Your task to perform on an android device: turn off smart reply in the gmail app Image 0: 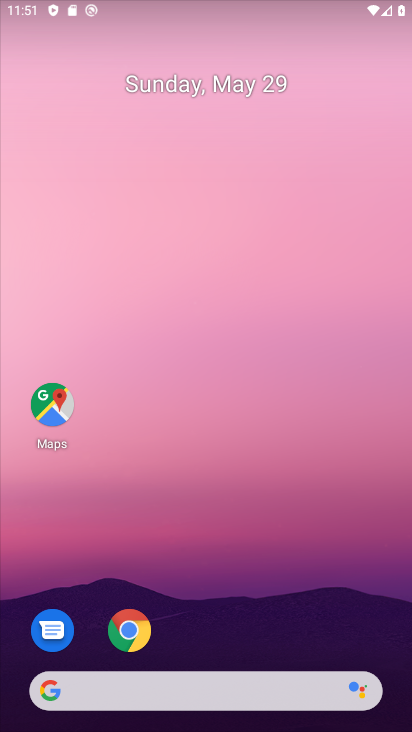
Step 0: drag from (253, 702) to (128, 104)
Your task to perform on an android device: turn off smart reply in the gmail app Image 1: 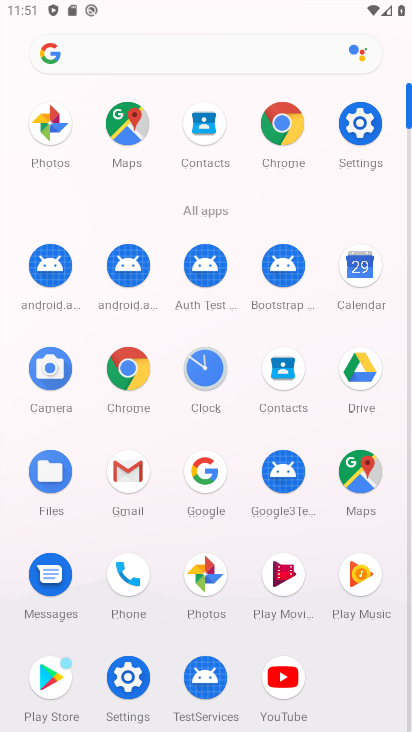
Step 1: click (134, 472)
Your task to perform on an android device: turn off smart reply in the gmail app Image 2: 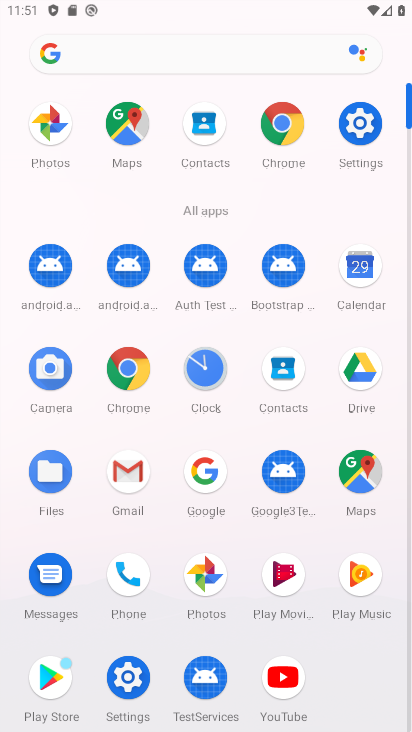
Step 2: click (133, 472)
Your task to perform on an android device: turn off smart reply in the gmail app Image 3: 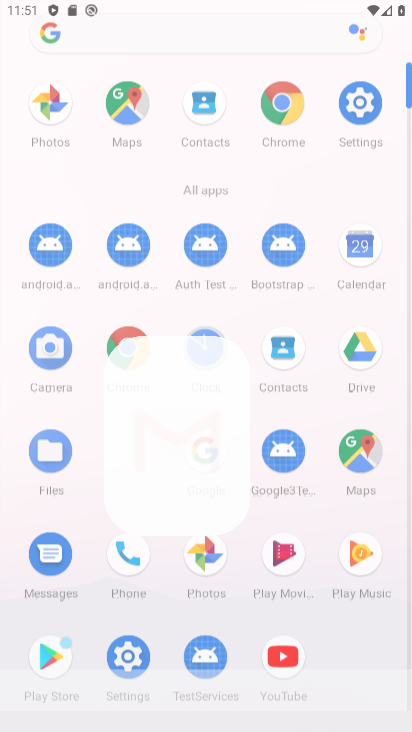
Step 3: click (133, 472)
Your task to perform on an android device: turn off smart reply in the gmail app Image 4: 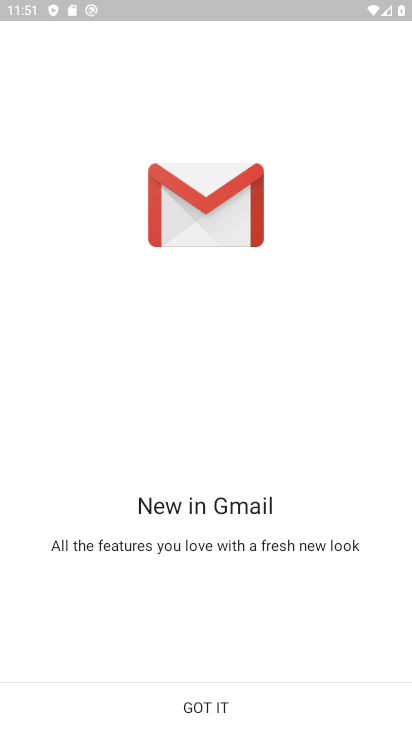
Step 4: click (208, 698)
Your task to perform on an android device: turn off smart reply in the gmail app Image 5: 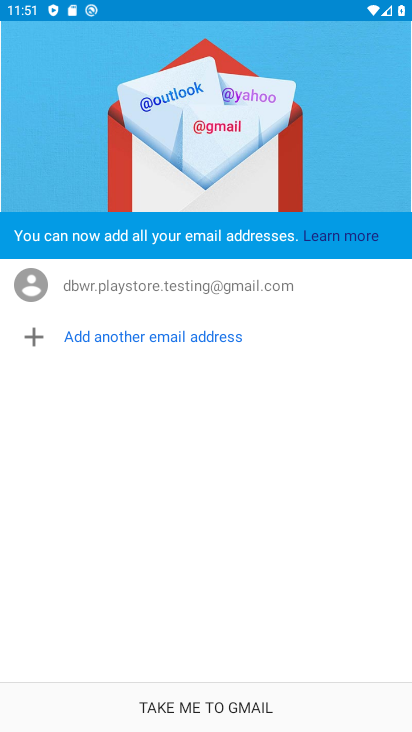
Step 5: click (227, 713)
Your task to perform on an android device: turn off smart reply in the gmail app Image 6: 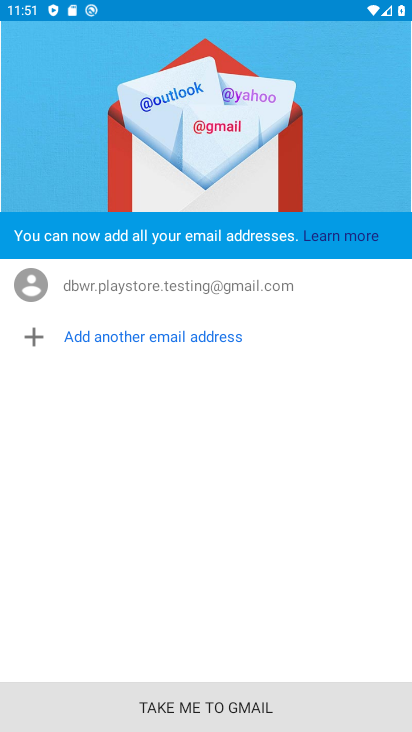
Step 6: click (236, 710)
Your task to perform on an android device: turn off smart reply in the gmail app Image 7: 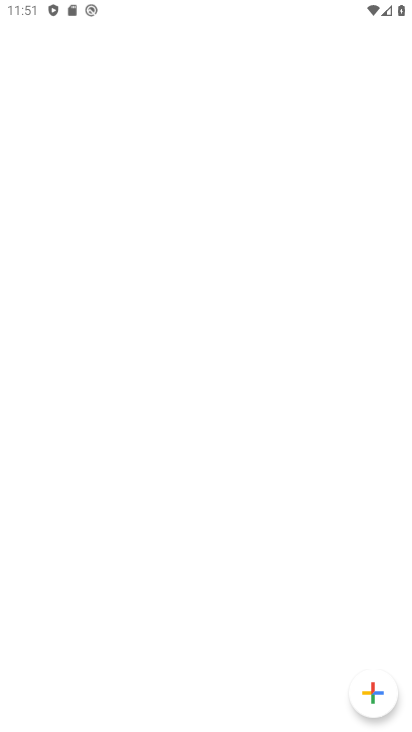
Step 7: click (242, 722)
Your task to perform on an android device: turn off smart reply in the gmail app Image 8: 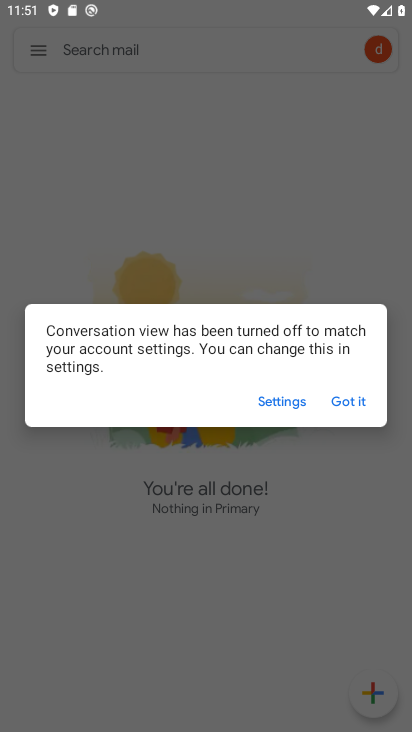
Step 8: click (341, 396)
Your task to perform on an android device: turn off smart reply in the gmail app Image 9: 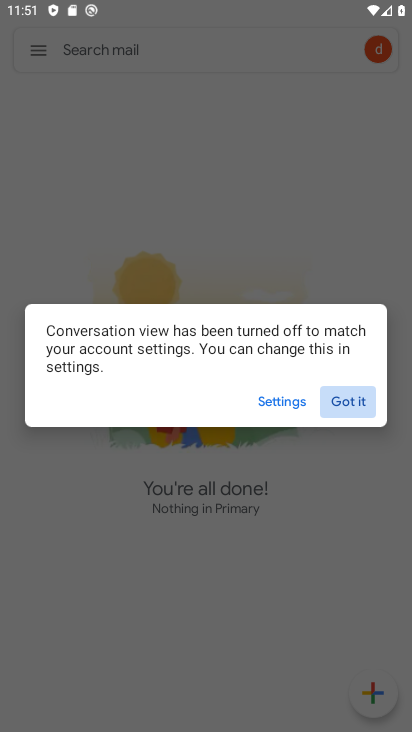
Step 9: click (341, 396)
Your task to perform on an android device: turn off smart reply in the gmail app Image 10: 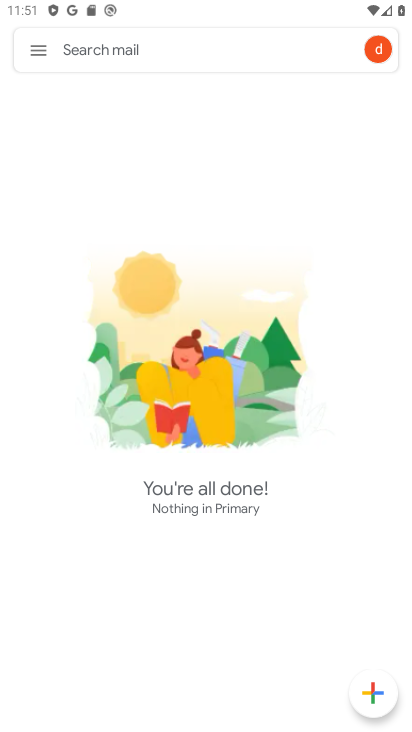
Step 10: click (37, 60)
Your task to perform on an android device: turn off smart reply in the gmail app Image 11: 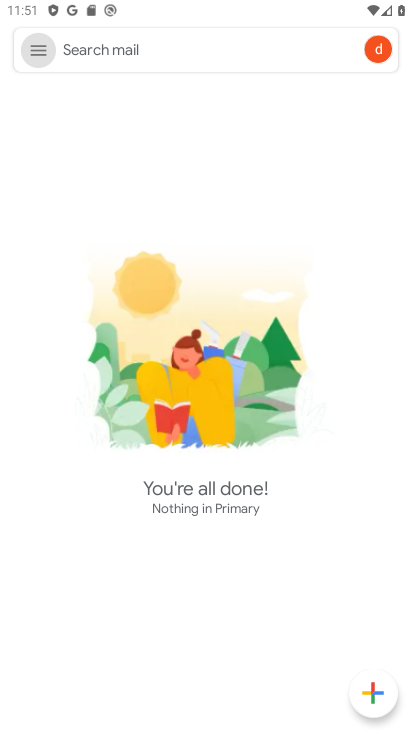
Step 11: click (41, 58)
Your task to perform on an android device: turn off smart reply in the gmail app Image 12: 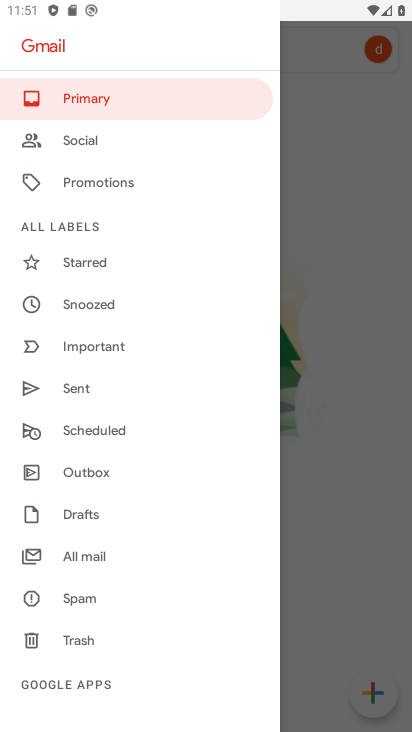
Step 12: click (64, 252)
Your task to perform on an android device: turn off smart reply in the gmail app Image 13: 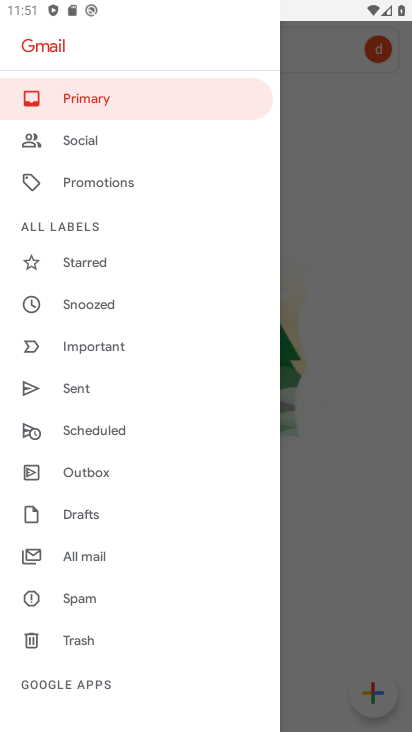
Step 13: drag from (72, 537) to (71, 282)
Your task to perform on an android device: turn off smart reply in the gmail app Image 14: 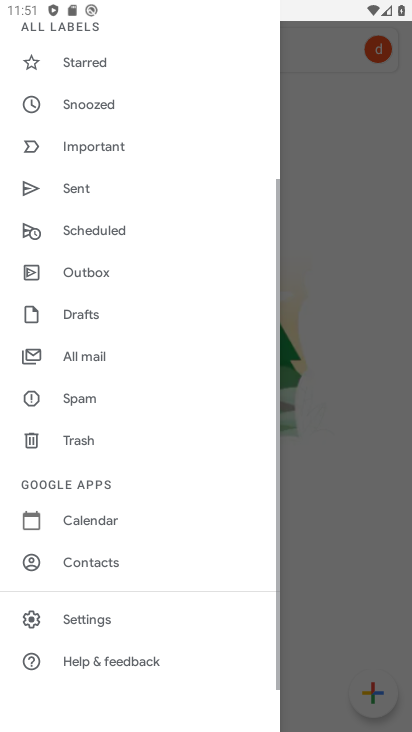
Step 14: drag from (150, 479) to (144, 61)
Your task to perform on an android device: turn off smart reply in the gmail app Image 15: 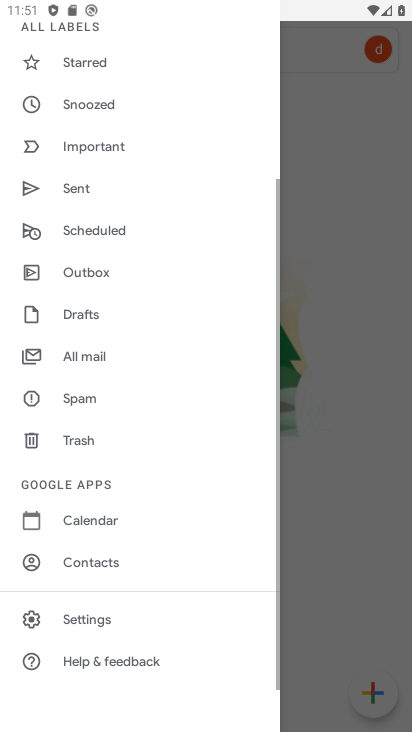
Step 15: click (88, 618)
Your task to perform on an android device: turn off smart reply in the gmail app Image 16: 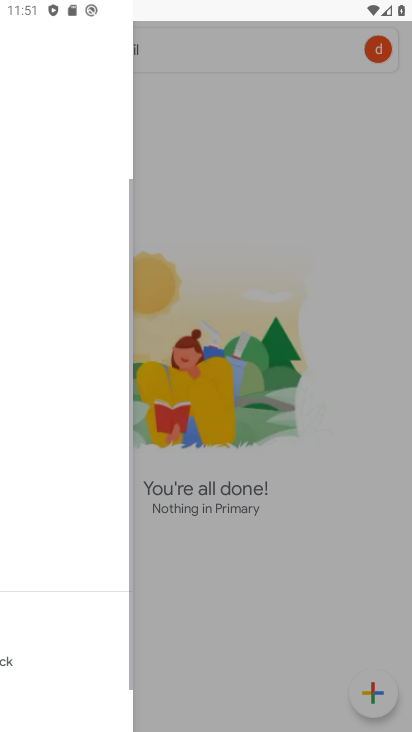
Step 16: click (88, 618)
Your task to perform on an android device: turn off smart reply in the gmail app Image 17: 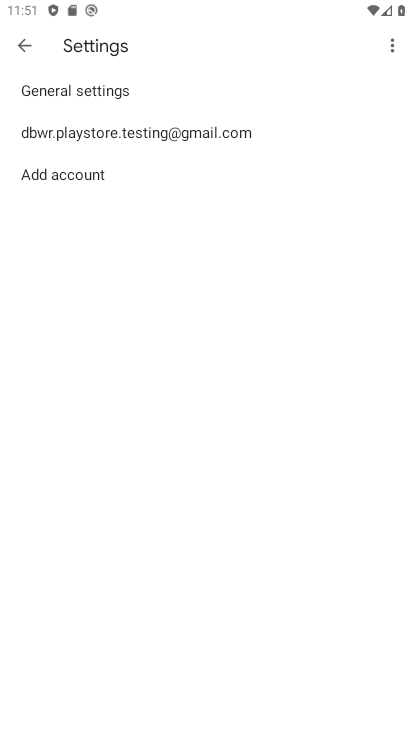
Step 17: click (91, 126)
Your task to perform on an android device: turn off smart reply in the gmail app Image 18: 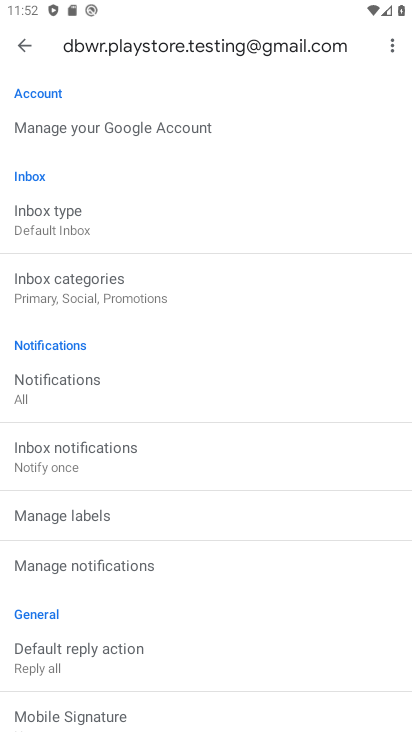
Step 18: drag from (32, 224) to (77, 487)
Your task to perform on an android device: turn off smart reply in the gmail app Image 19: 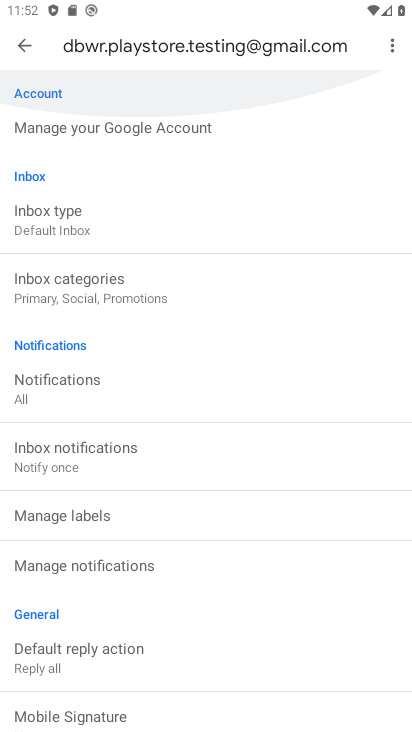
Step 19: drag from (80, 293) to (87, 438)
Your task to perform on an android device: turn off smart reply in the gmail app Image 20: 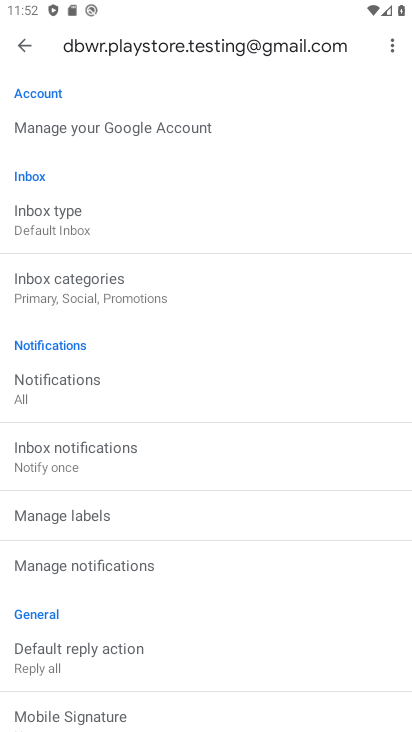
Step 20: drag from (71, 446) to (53, 163)
Your task to perform on an android device: turn off smart reply in the gmail app Image 21: 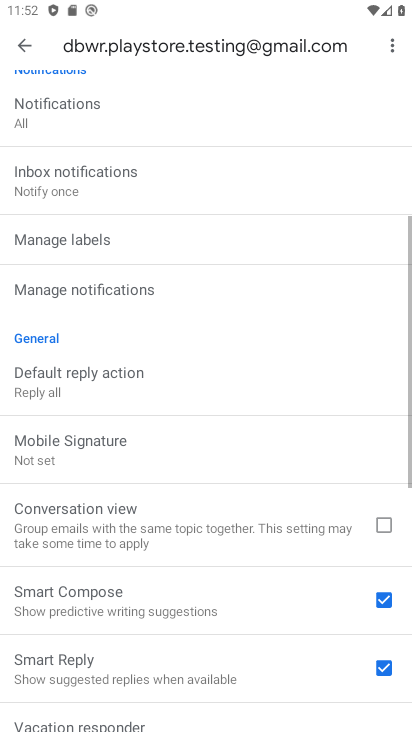
Step 21: drag from (68, 325) to (68, 200)
Your task to perform on an android device: turn off smart reply in the gmail app Image 22: 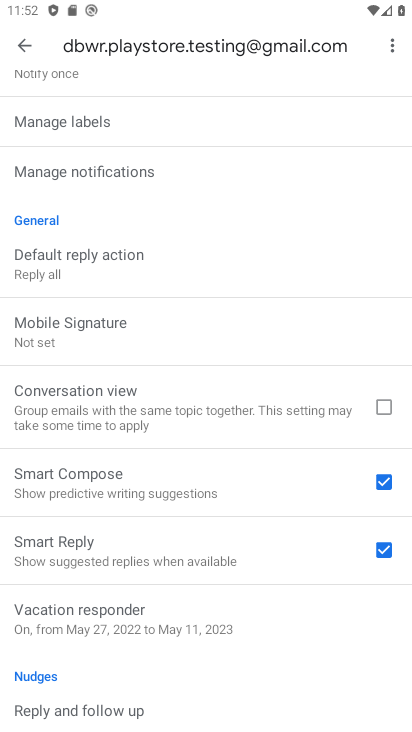
Step 22: click (386, 547)
Your task to perform on an android device: turn off smart reply in the gmail app Image 23: 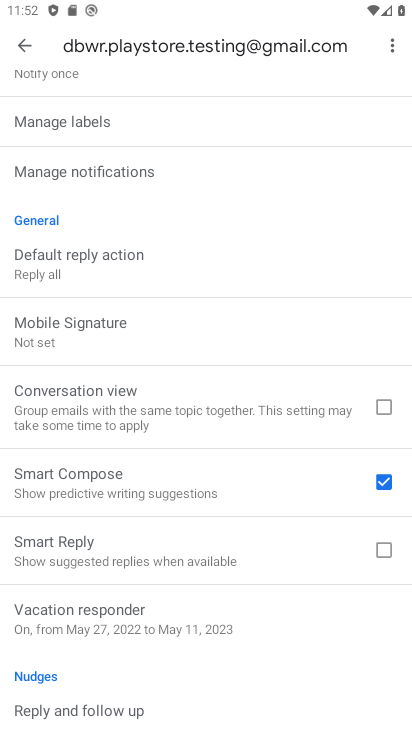
Step 23: task complete